Your task to perform on an android device: What is the recent news? Image 0: 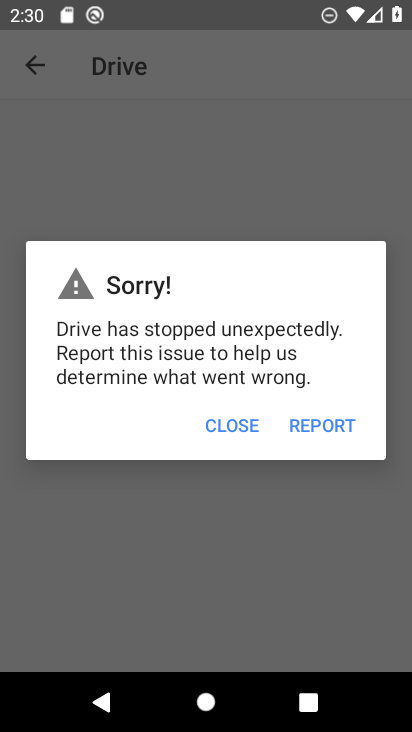
Step 0: press home button
Your task to perform on an android device: What is the recent news? Image 1: 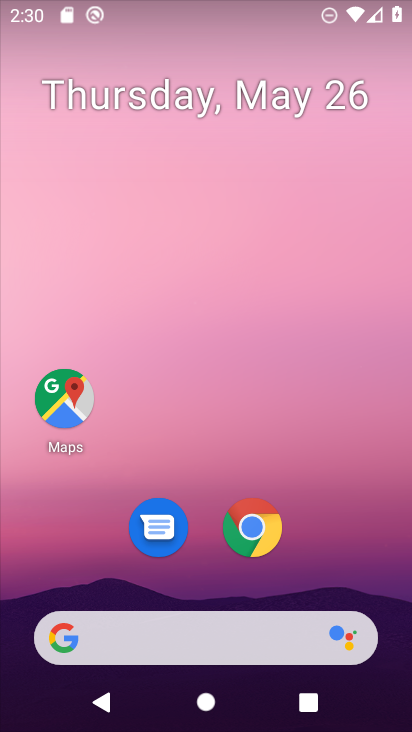
Step 1: click (182, 659)
Your task to perform on an android device: What is the recent news? Image 2: 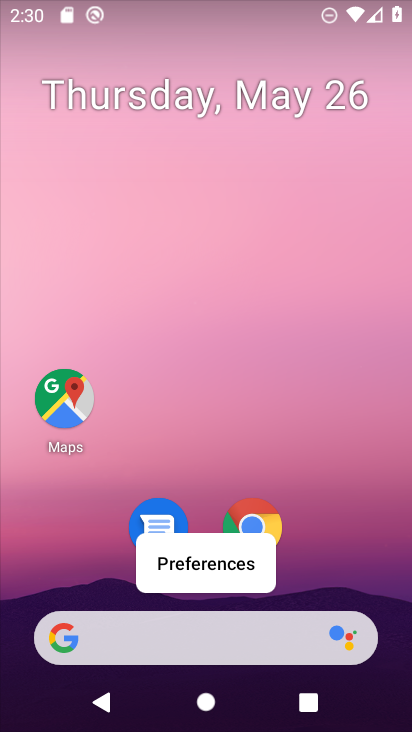
Step 2: click (199, 630)
Your task to perform on an android device: What is the recent news? Image 3: 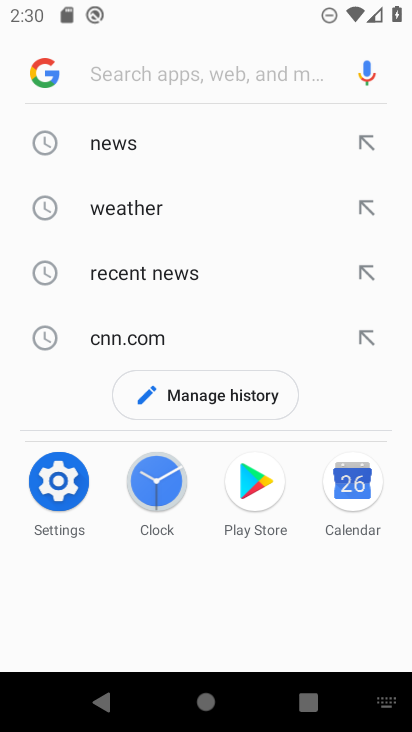
Step 3: click (138, 139)
Your task to perform on an android device: What is the recent news? Image 4: 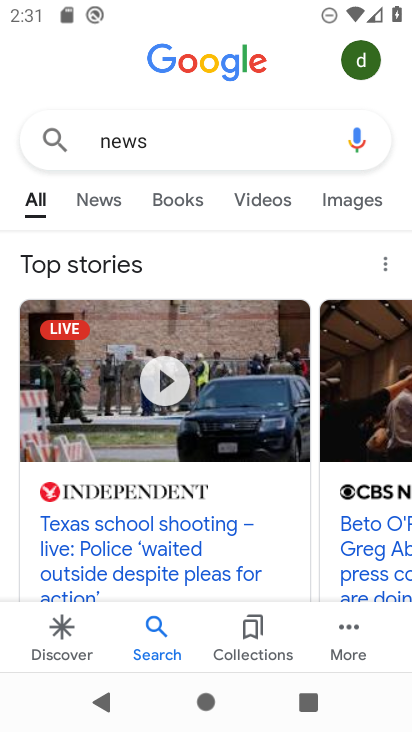
Step 4: task complete